Your task to perform on an android device: When is my next appointment? Image 0: 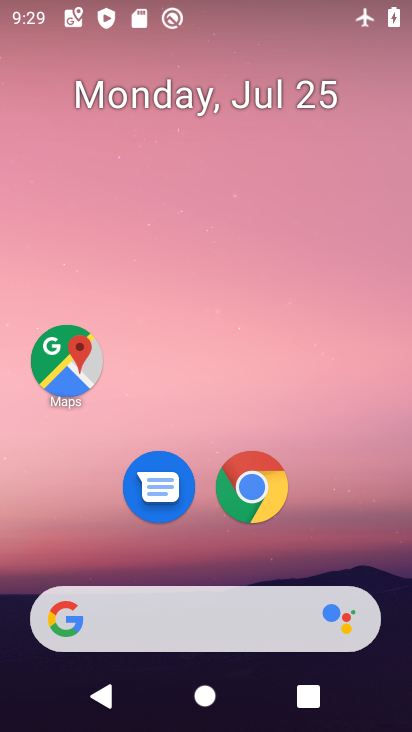
Step 0: drag from (169, 568) to (275, 14)
Your task to perform on an android device: When is my next appointment? Image 1: 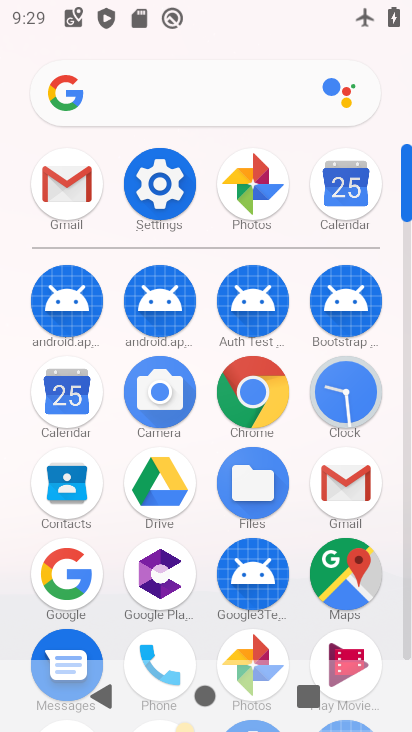
Step 1: click (54, 407)
Your task to perform on an android device: When is my next appointment? Image 2: 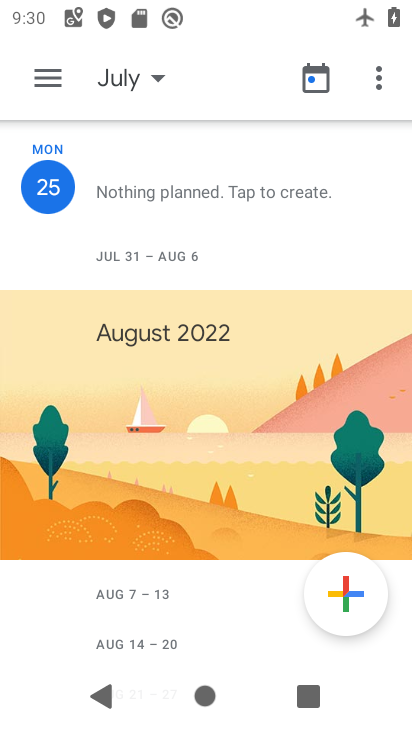
Step 2: task complete